Your task to perform on an android device: Go to wifi settings Image 0: 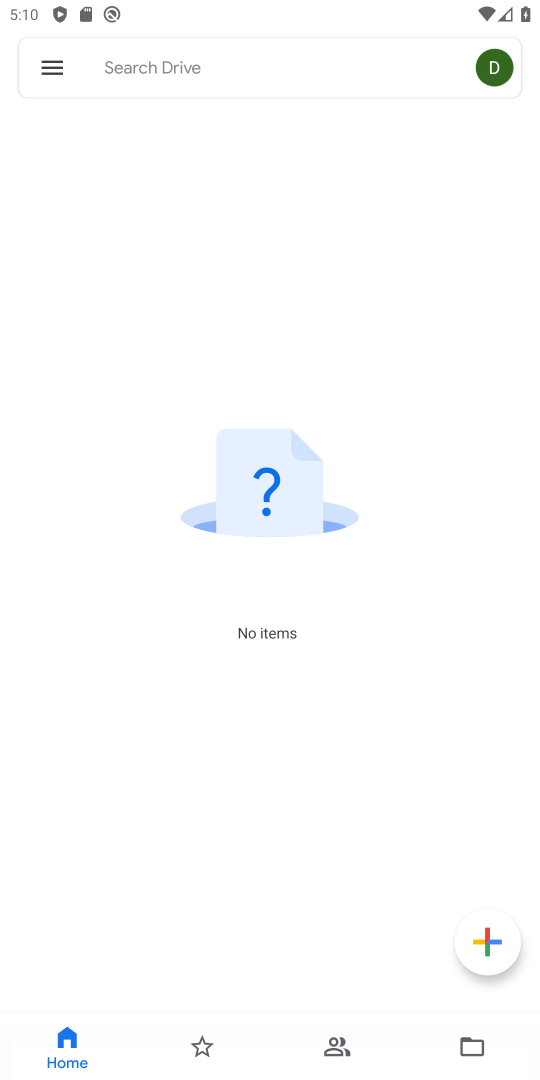
Step 0: press home button
Your task to perform on an android device: Go to wifi settings Image 1: 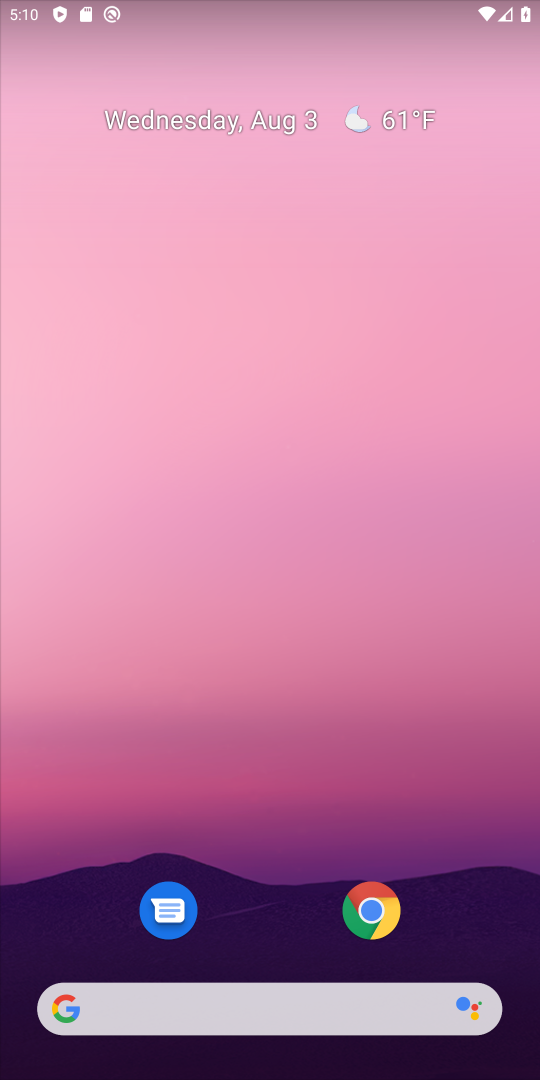
Step 1: drag from (280, 4) to (204, 684)
Your task to perform on an android device: Go to wifi settings Image 2: 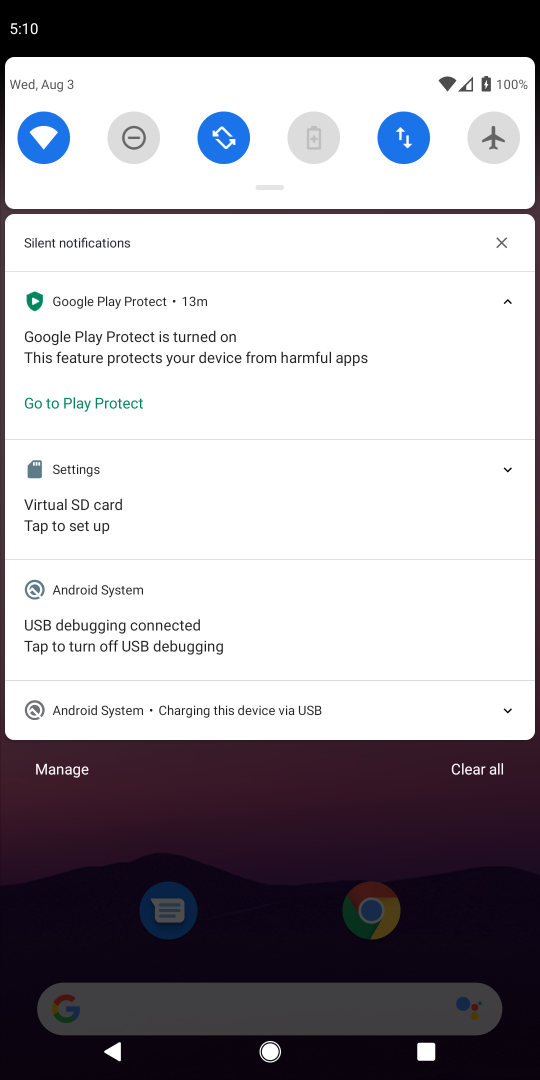
Step 2: click (57, 136)
Your task to perform on an android device: Go to wifi settings Image 3: 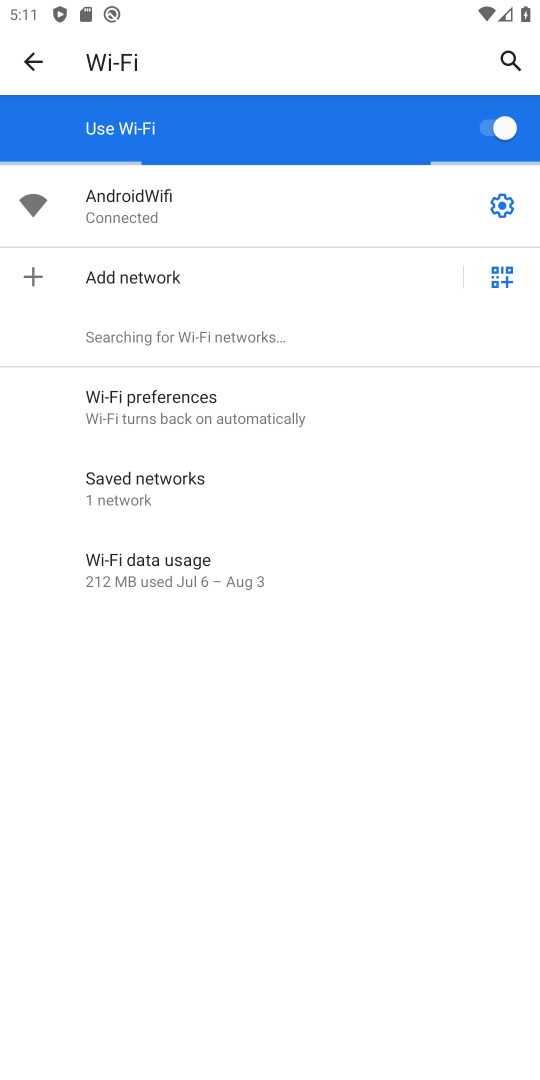
Step 3: task complete